Your task to perform on an android device: turn on javascript in the chrome app Image 0: 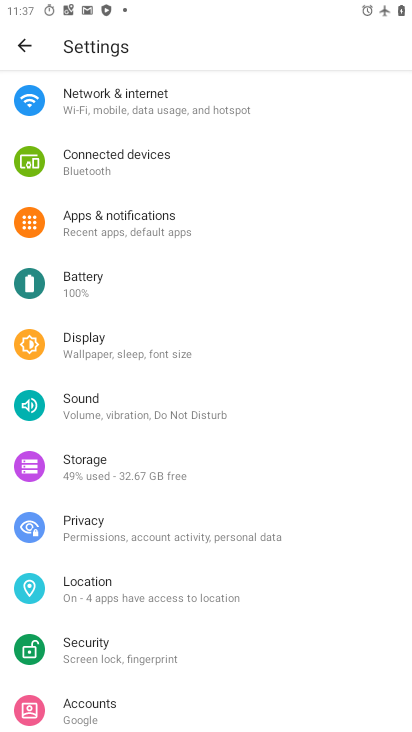
Step 0: press home button
Your task to perform on an android device: turn on javascript in the chrome app Image 1: 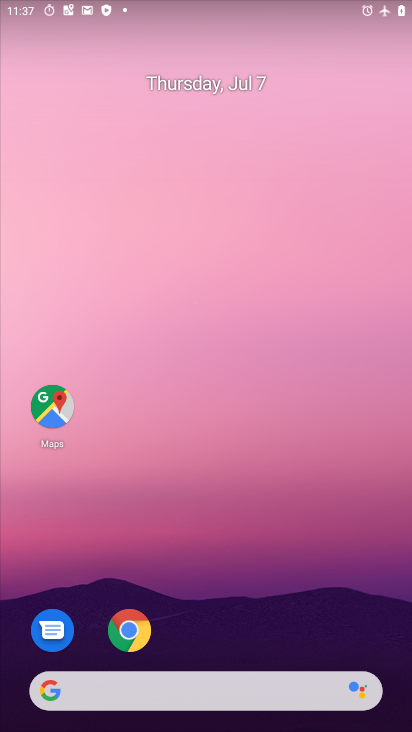
Step 1: click (140, 630)
Your task to perform on an android device: turn on javascript in the chrome app Image 2: 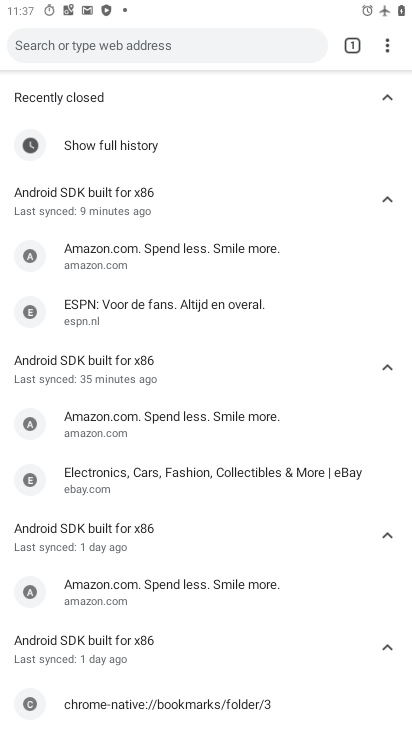
Step 2: click (380, 58)
Your task to perform on an android device: turn on javascript in the chrome app Image 3: 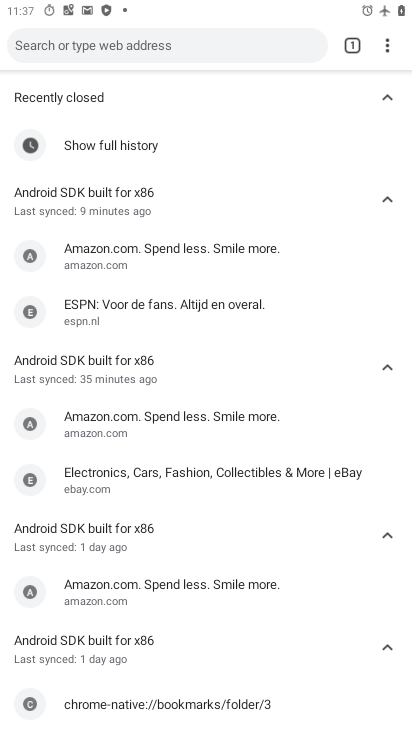
Step 3: click (390, 47)
Your task to perform on an android device: turn on javascript in the chrome app Image 4: 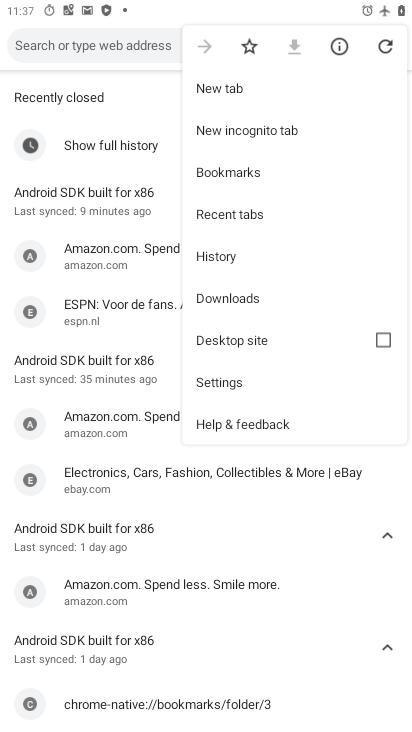
Step 4: click (248, 374)
Your task to perform on an android device: turn on javascript in the chrome app Image 5: 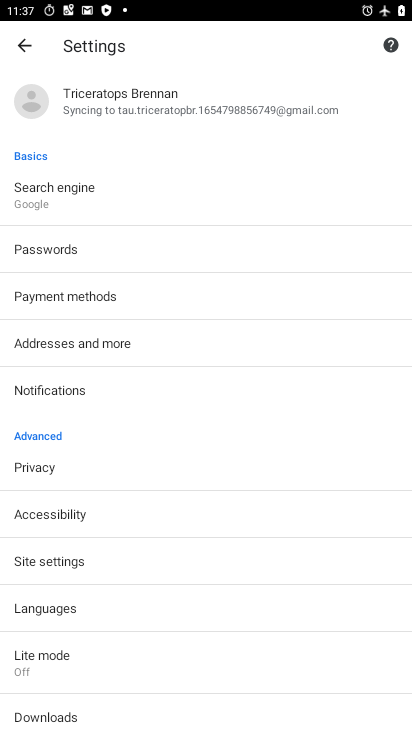
Step 5: click (72, 559)
Your task to perform on an android device: turn on javascript in the chrome app Image 6: 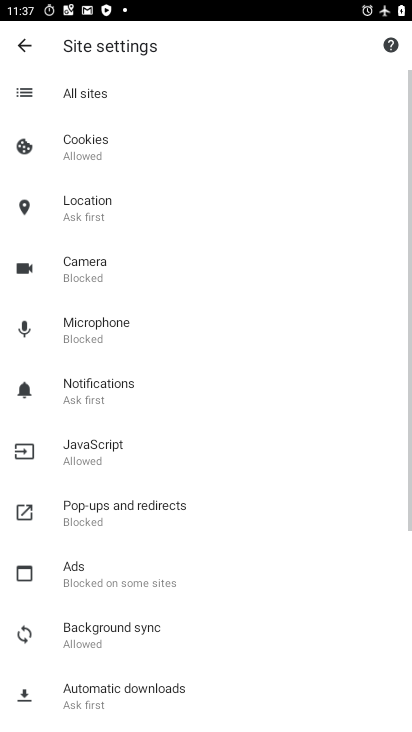
Step 6: click (103, 460)
Your task to perform on an android device: turn on javascript in the chrome app Image 7: 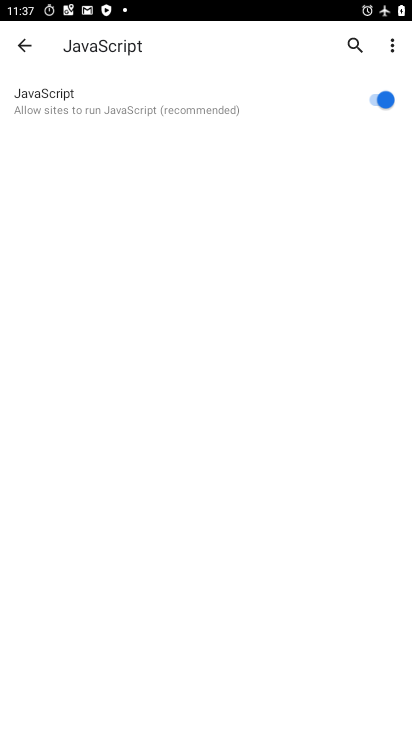
Step 7: task complete